Your task to perform on an android device: turn on data saver in the chrome app Image 0: 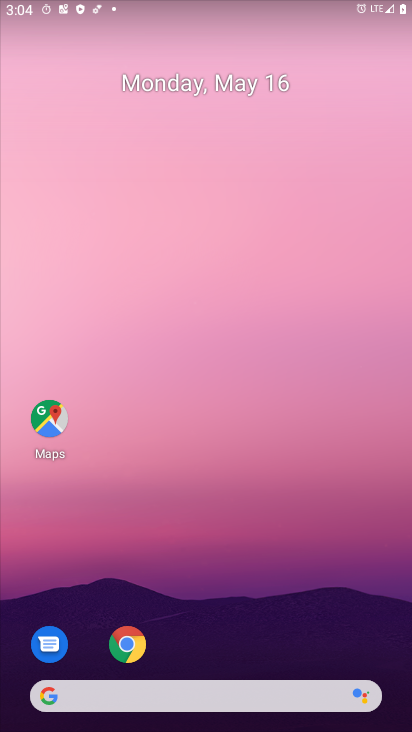
Step 0: drag from (359, 634) to (316, 206)
Your task to perform on an android device: turn on data saver in the chrome app Image 1: 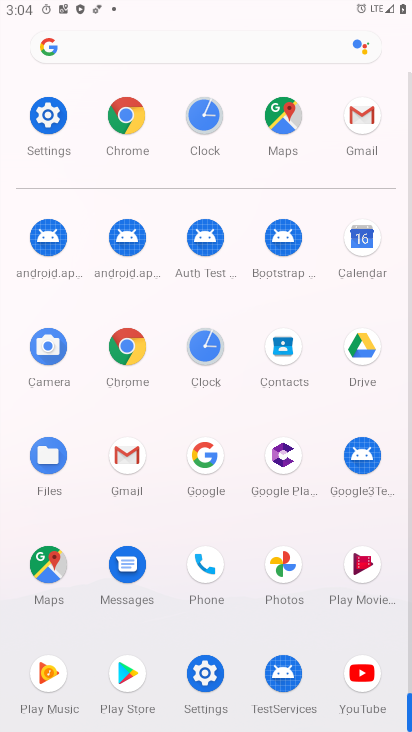
Step 1: click (116, 125)
Your task to perform on an android device: turn on data saver in the chrome app Image 2: 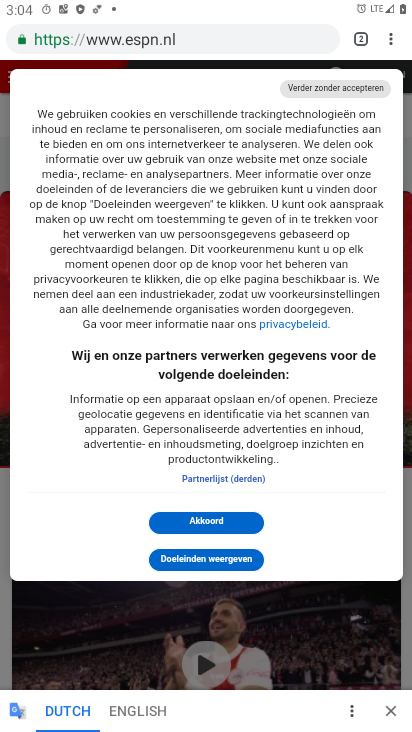
Step 2: click (397, 701)
Your task to perform on an android device: turn on data saver in the chrome app Image 3: 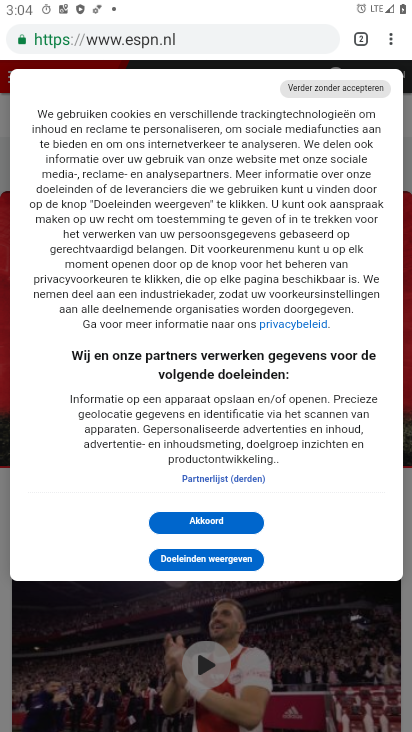
Step 3: click (392, 41)
Your task to perform on an android device: turn on data saver in the chrome app Image 4: 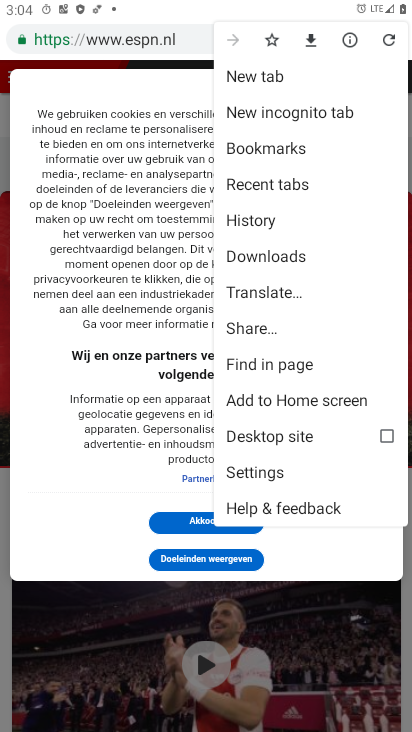
Step 4: click (288, 459)
Your task to perform on an android device: turn on data saver in the chrome app Image 5: 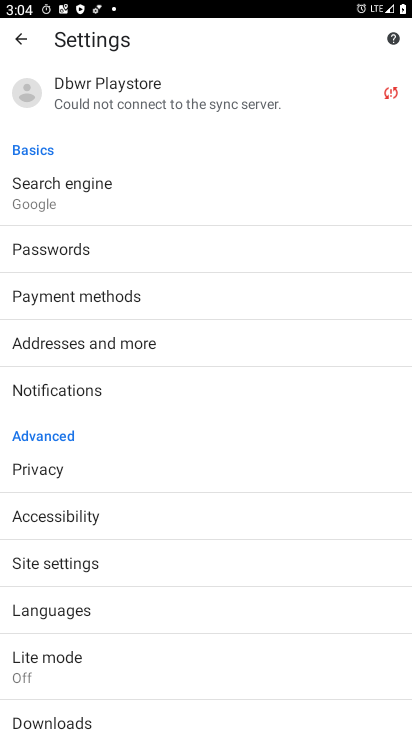
Step 5: drag from (109, 548) to (110, 422)
Your task to perform on an android device: turn on data saver in the chrome app Image 6: 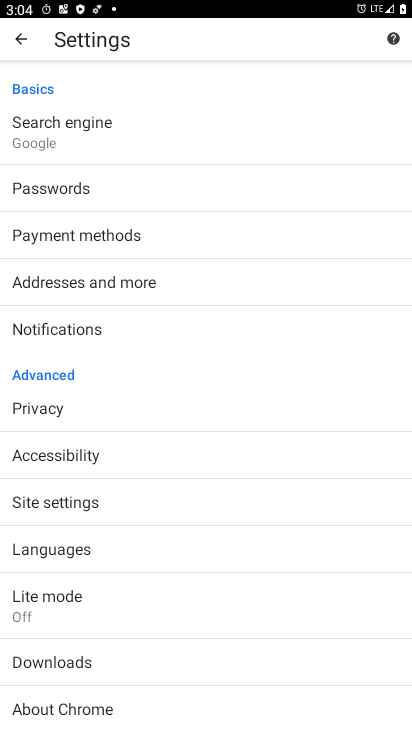
Step 6: click (155, 613)
Your task to perform on an android device: turn on data saver in the chrome app Image 7: 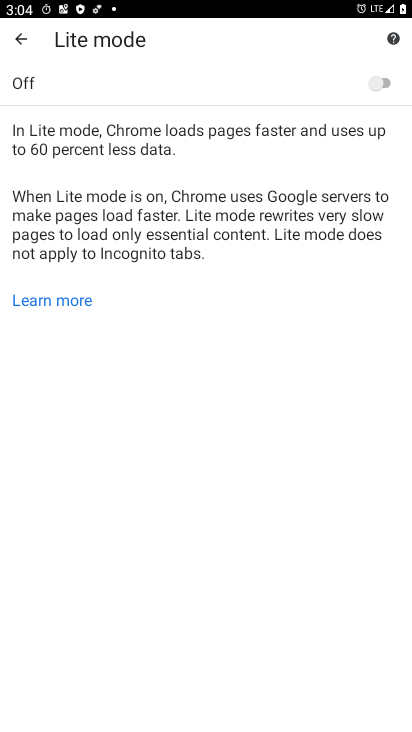
Step 7: click (385, 87)
Your task to perform on an android device: turn on data saver in the chrome app Image 8: 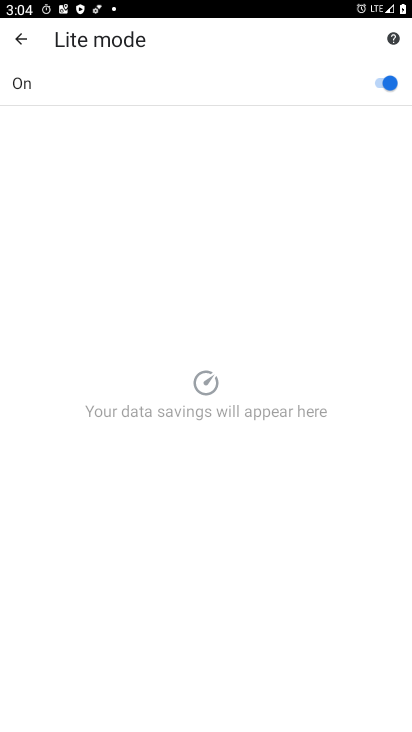
Step 8: task complete